Your task to perform on an android device: Search for seafood restaurants on Google Maps Image 0: 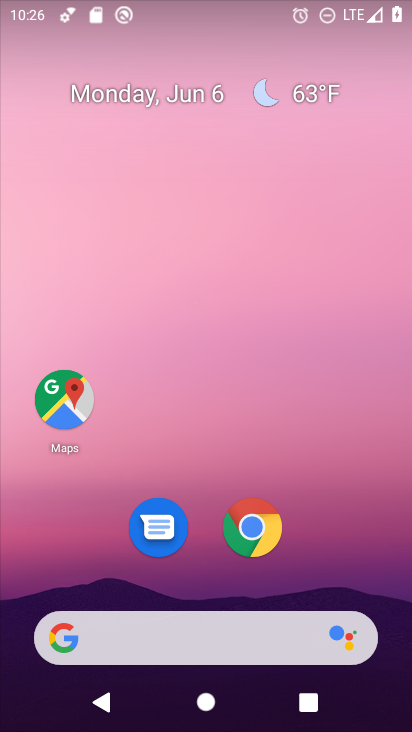
Step 0: drag from (360, 568) to (362, 189)
Your task to perform on an android device: Search for seafood restaurants on Google Maps Image 1: 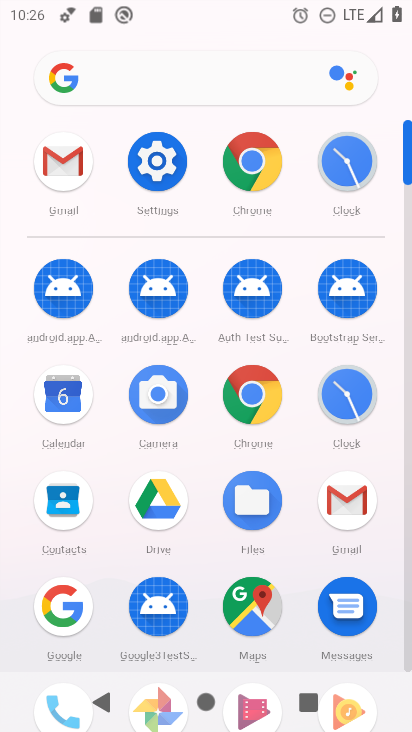
Step 1: click (259, 622)
Your task to perform on an android device: Search for seafood restaurants on Google Maps Image 2: 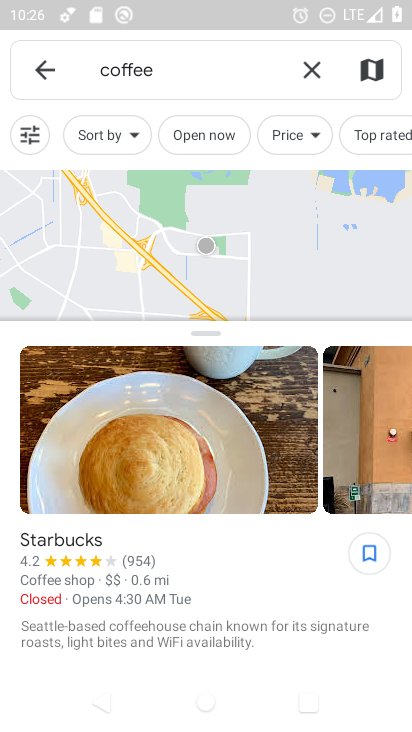
Step 2: click (318, 66)
Your task to perform on an android device: Search for seafood restaurants on Google Maps Image 3: 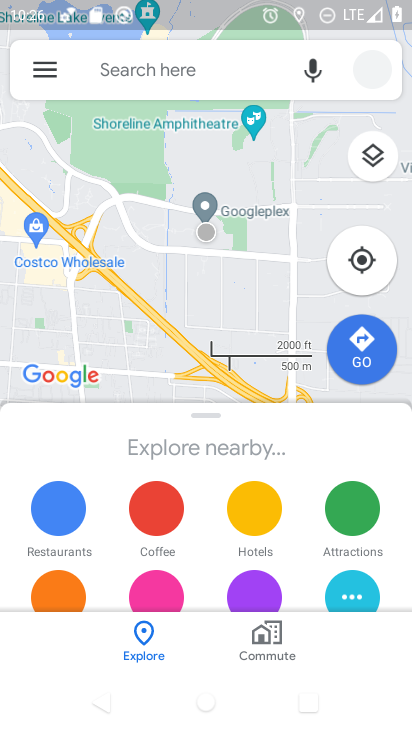
Step 3: click (250, 62)
Your task to perform on an android device: Search for seafood restaurants on Google Maps Image 4: 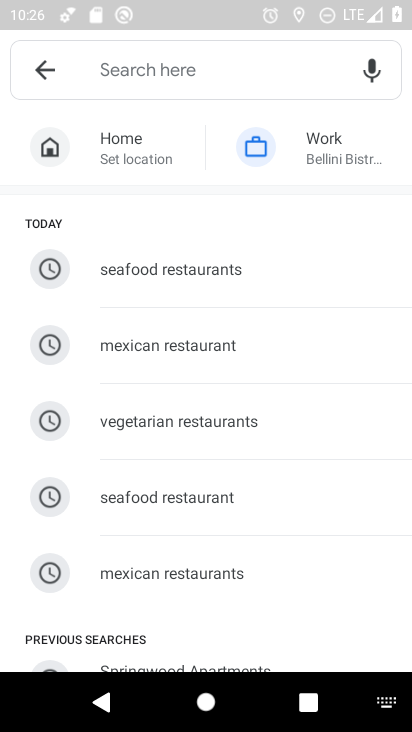
Step 4: type "seafood restaurants"
Your task to perform on an android device: Search for seafood restaurants on Google Maps Image 5: 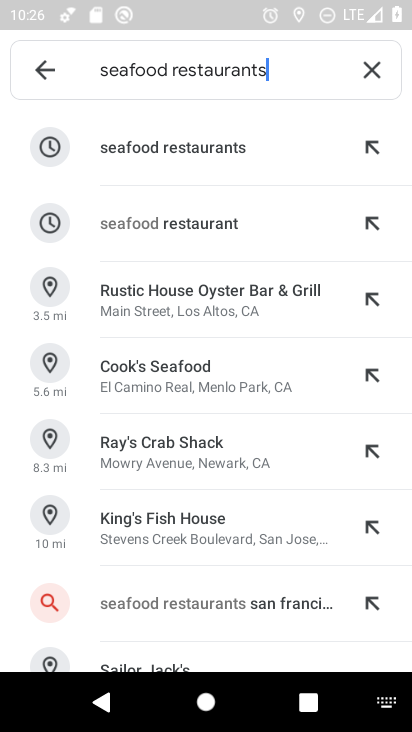
Step 5: click (266, 164)
Your task to perform on an android device: Search for seafood restaurants on Google Maps Image 6: 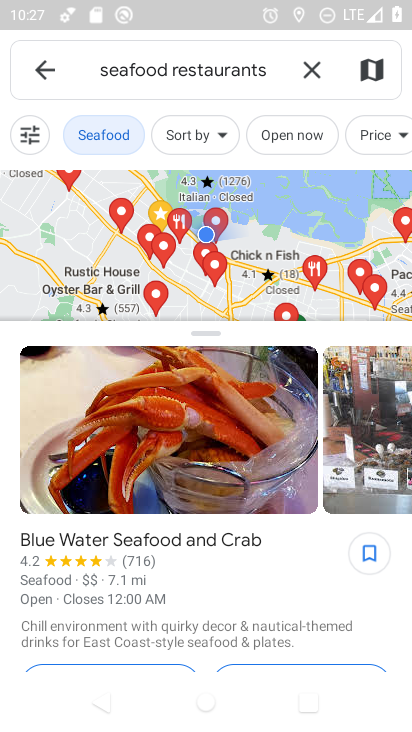
Step 6: task complete